Your task to perform on an android device: turn on location history Image 0: 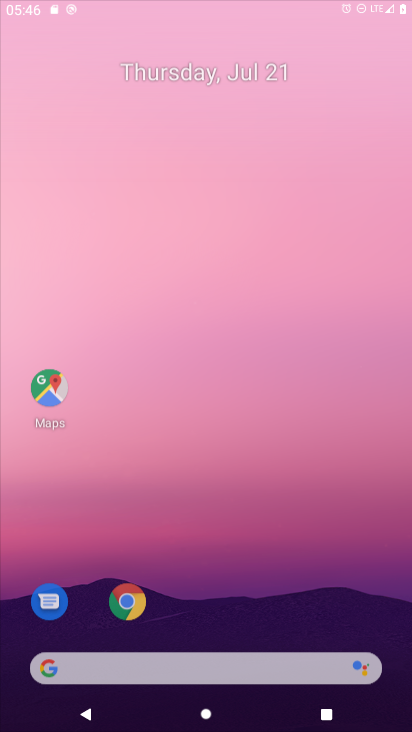
Step 0: drag from (224, 656) to (291, 33)
Your task to perform on an android device: turn on location history Image 1: 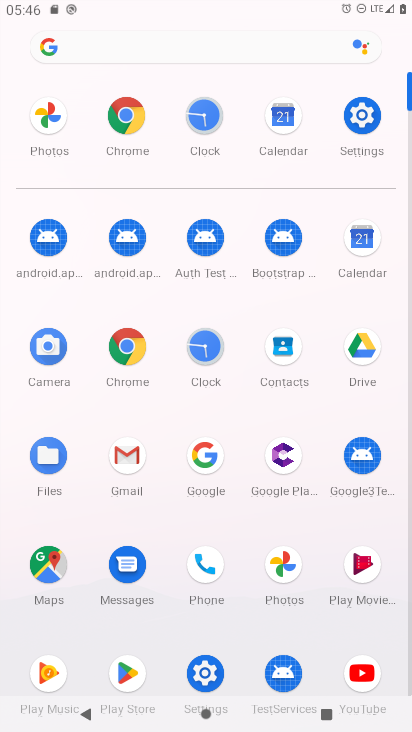
Step 1: click (366, 112)
Your task to perform on an android device: turn on location history Image 2: 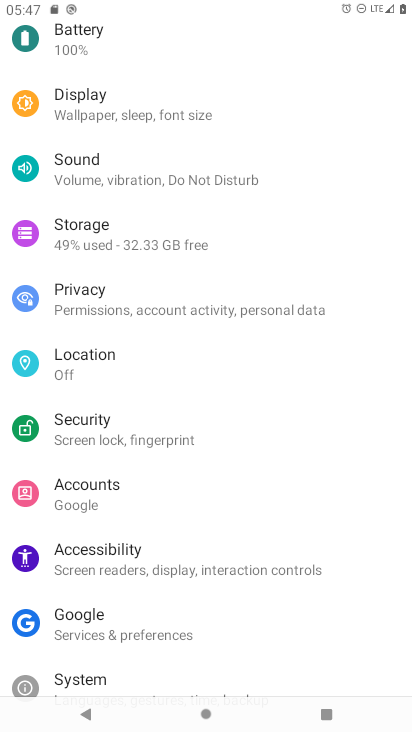
Step 2: click (105, 367)
Your task to perform on an android device: turn on location history Image 3: 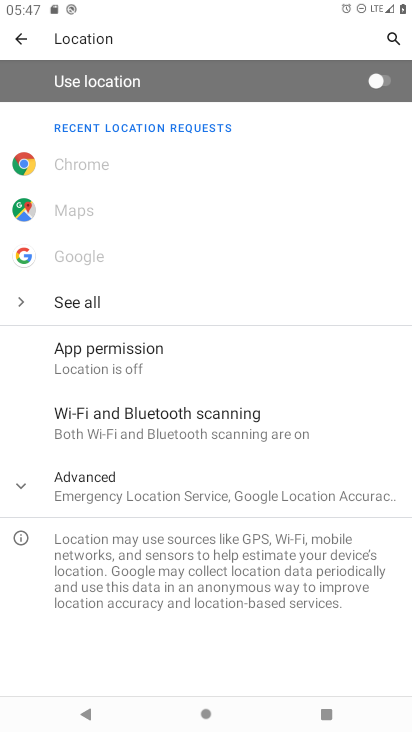
Step 3: click (230, 421)
Your task to perform on an android device: turn on location history Image 4: 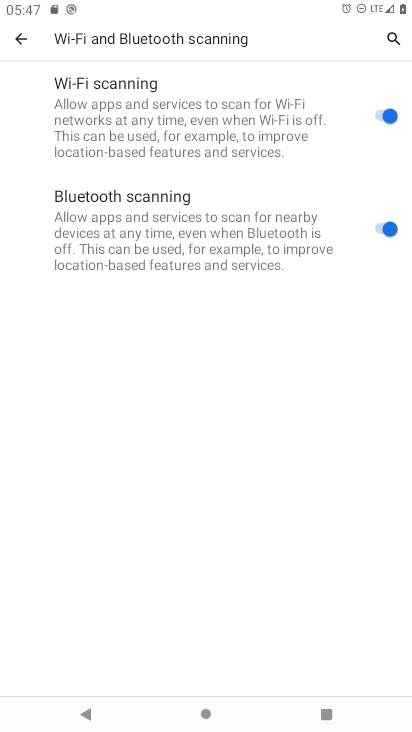
Step 4: press back button
Your task to perform on an android device: turn on location history Image 5: 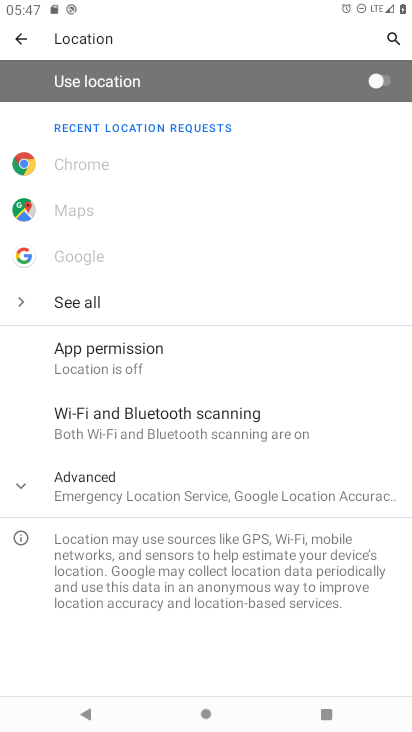
Step 5: click (129, 488)
Your task to perform on an android device: turn on location history Image 6: 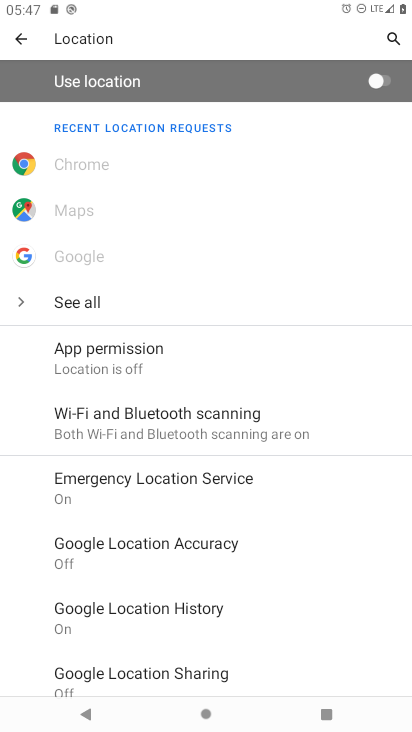
Step 6: click (157, 612)
Your task to perform on an android device: turn on location history Image 7: 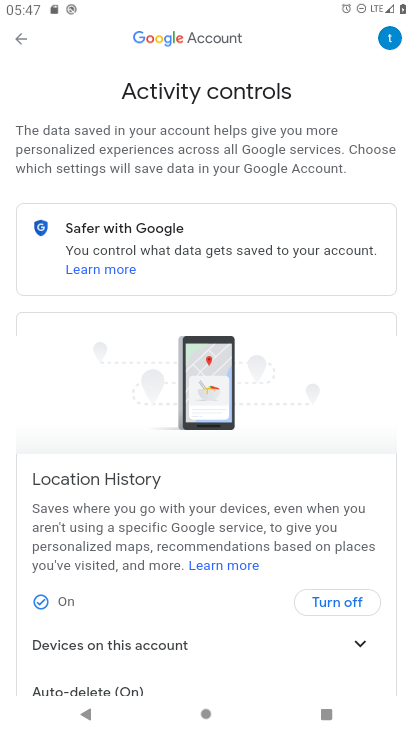
Step 7: task complete